Your task to perform on an android device: open chrome and create a bookmark for the current page Image 0: 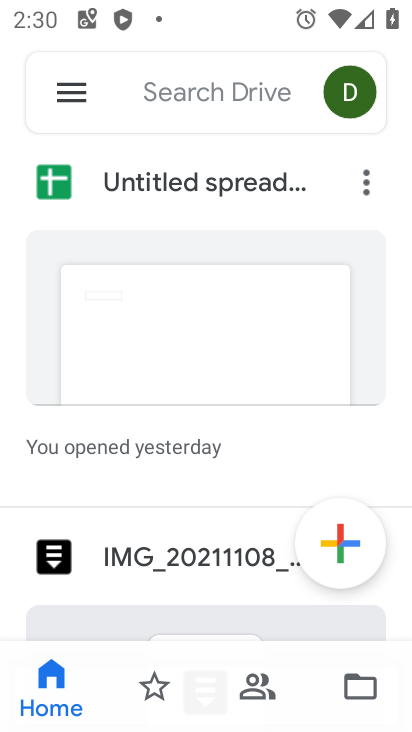
Step 0: press home button
Your task to perform on an android device: open chrome and create a bookmark for the current page Image 1: 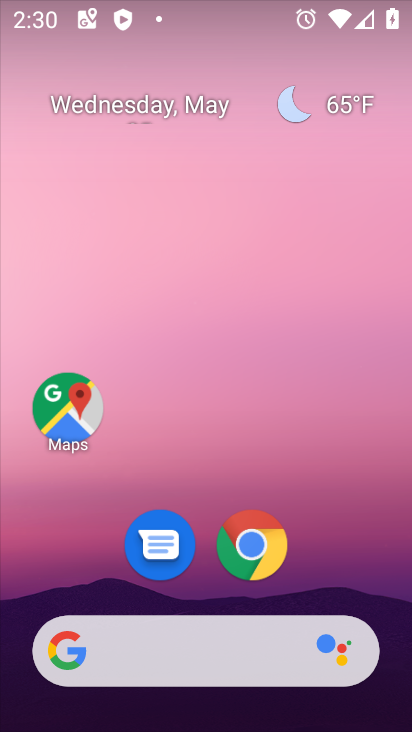
Step 1: click (245, 562)
Your task to perform on an android device: open chrome and create a bookmark for the current page Image 2: 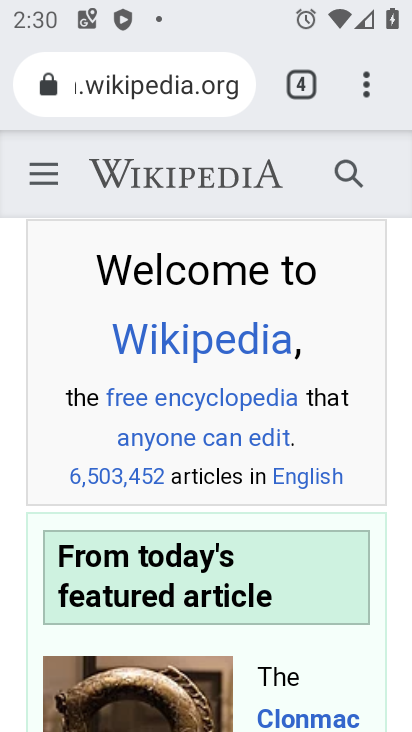
Step 2: click (351, 87)
Your task to perform on an android device: open chrome and create a bookmark for the current page Image 3: 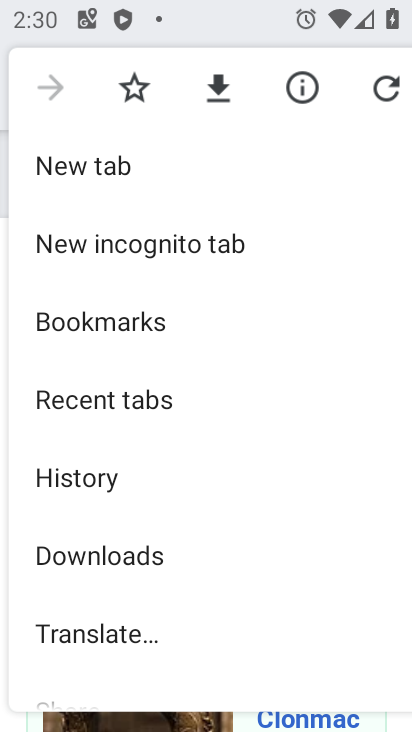
Step 3: click (142, 90)
Your task to perform on an android device: open chrome and create a bookmark for the current page Image 4: 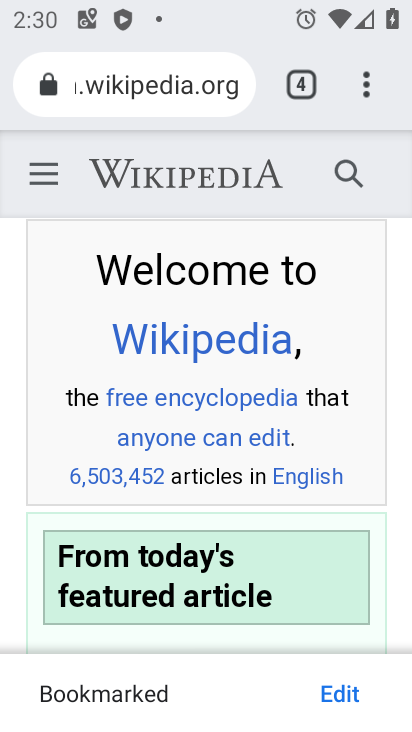
Step 4: task complete